Your task to perform on an android device: change notification settings in the gmail app Image 0: 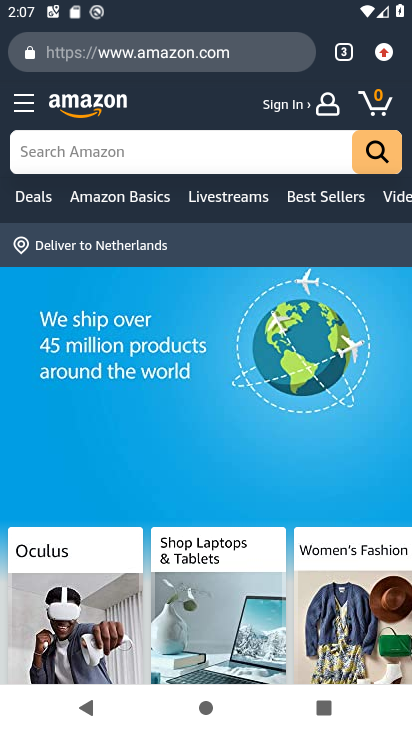
Step 0: press home button
Your task to perform on an android device: change notification settings in the gmail app Image 1: 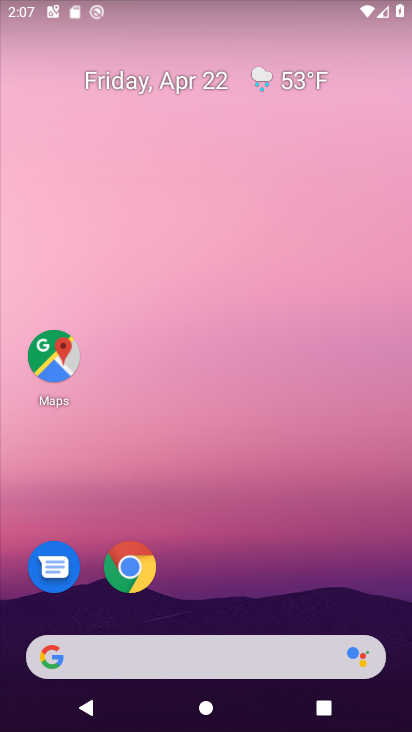
Step 1: drag from (260, 566) to (315, 127)
Your task to perform on an android device: change notification settings in the gmail app Image 2: 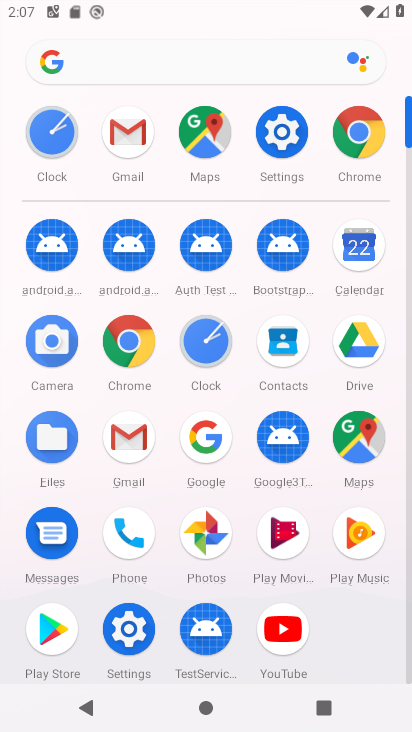
Step 2: click (133, 139)
Your task to perform on an android device: change notification settings in the gmail app Image 3: 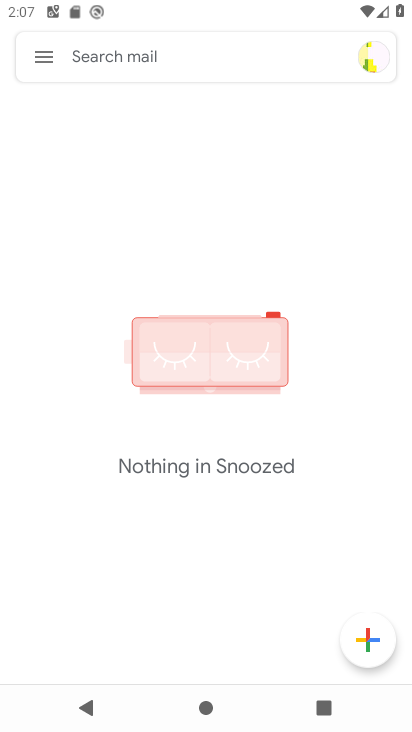
Step 3: click (45, 54)
Your task to perform on an android device: change notification settings in the gmail app Image 4: 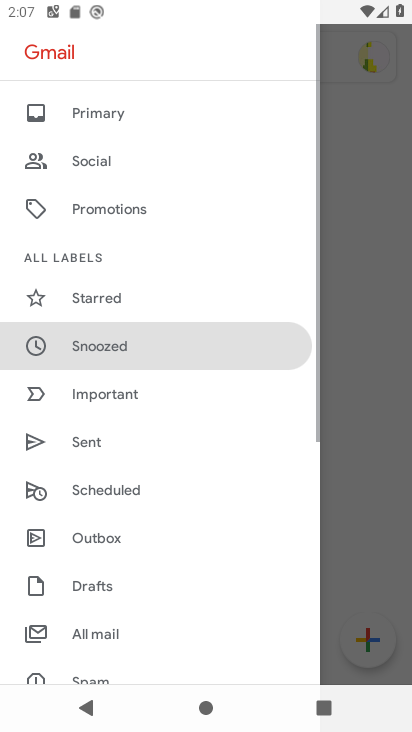
Step 4: drag from (148, 575) to (166, 244)
Your task to perform on an android device: change notification settings in the gmail app Image 5: 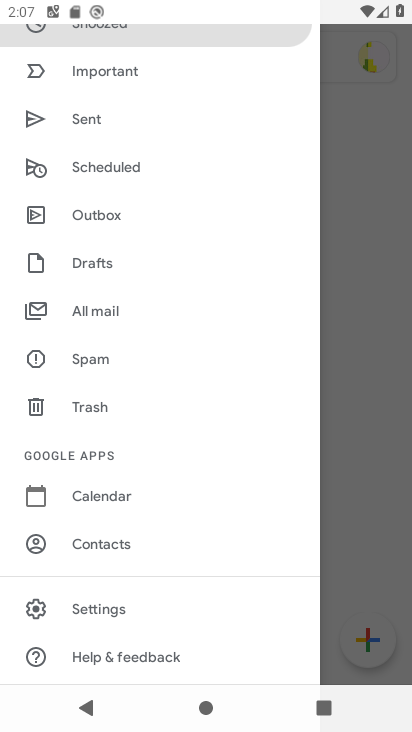
Step 5: click (114, 602)
Your task to perform on an android device: change notification settings in the gmail app Image 6: 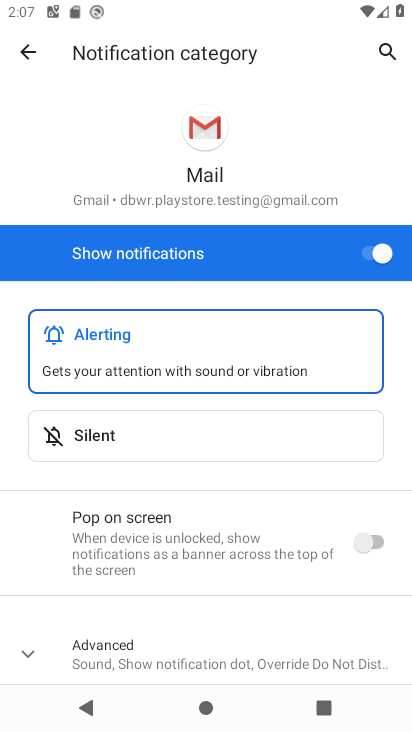
Step 6: click (368, 247)
Your task to perform on an android device: change notification settings in the gmail app Image 7: 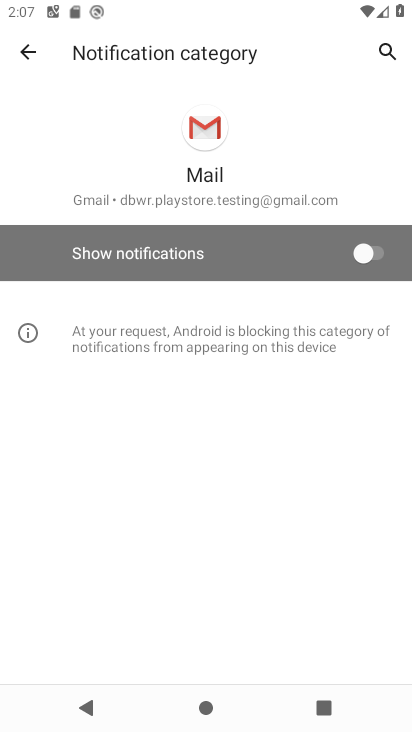
Step 7: task complete